Your task to perform on an android device: turn off location Image 0: 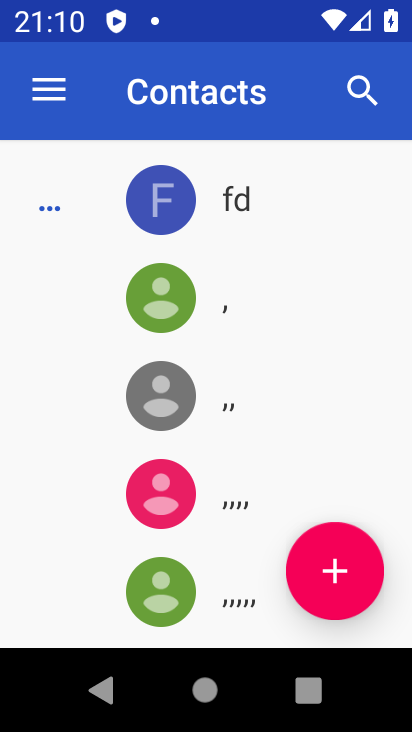
Step 0: press home button
Your task to perform on an android device: turn off location Image 1: 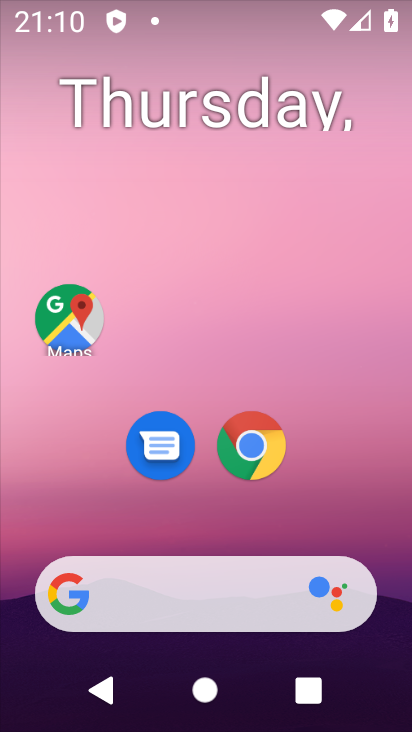
Step 1: drag from (3, 361) to (228, 186)
Your task to perform on an android device: turn off location Image 2: 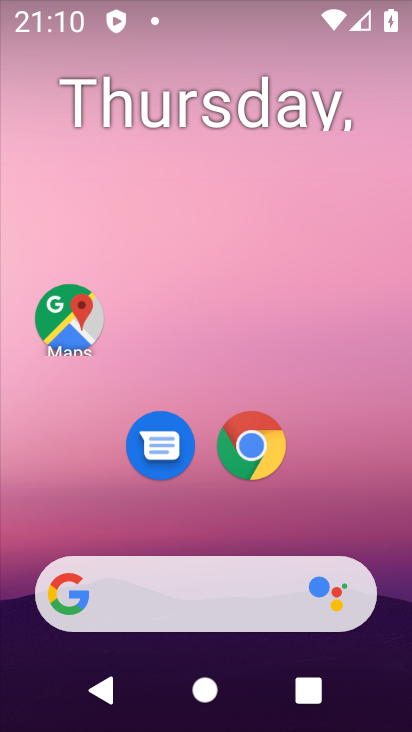
Step 2: drag from (12, 654) to (310, 148)
Your task to perform on an android device: turn off location Image 3: 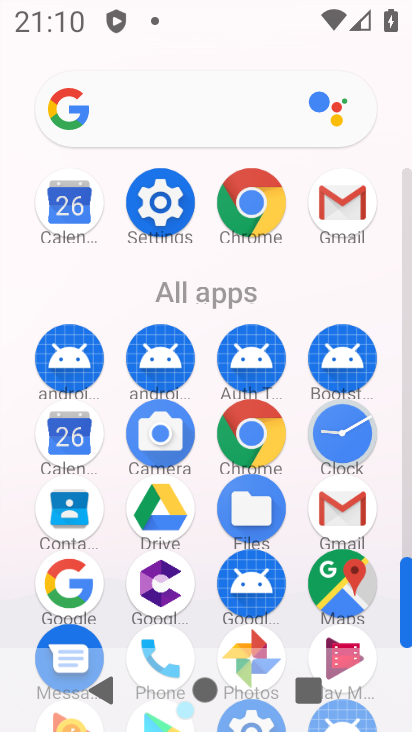
Step 3: click (146, 205)
Your task to perform on an android device: turn off location Image 4: 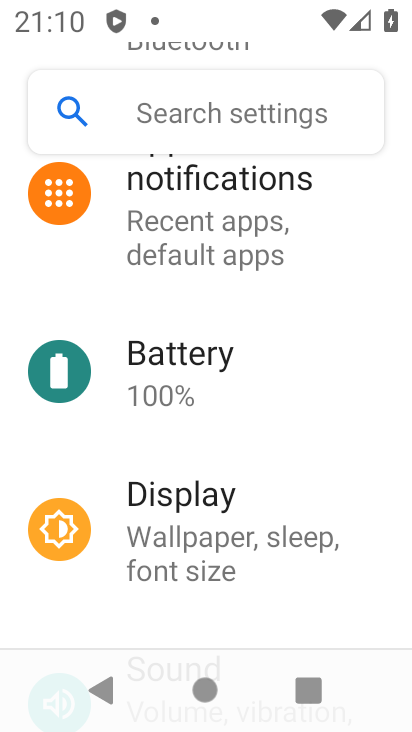
Step 4: drag from (0, 622) to (317, 196)
Your task to perform on an android device: turn off location Image 5: 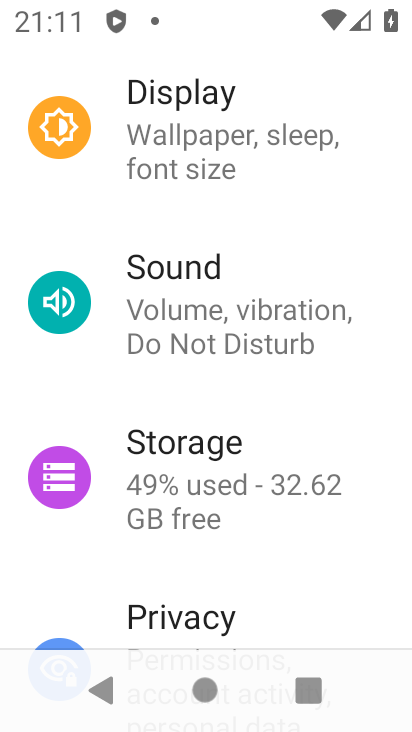
Step 5: drag from (39, 539) to (194, 360)
Your task to perform on an android device: turn off location Image 6: 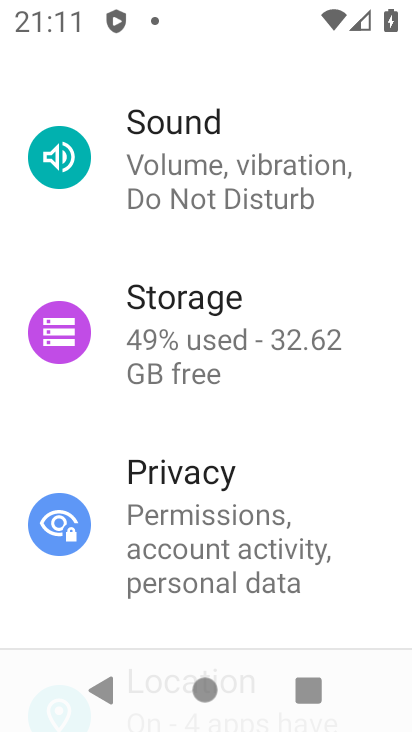
Step 6: drag from (26, 579) to (244, 264)
Your task to perform on an android device: turn off location Image 7: 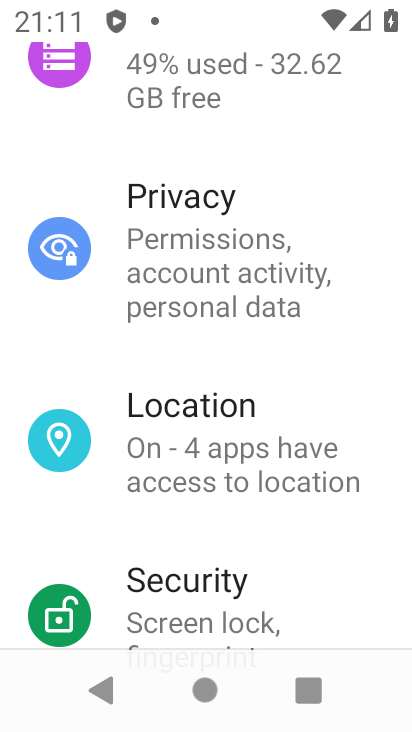
Step 7: click (213, 428)
Your task to perform on an android device: turn off location Image 8: 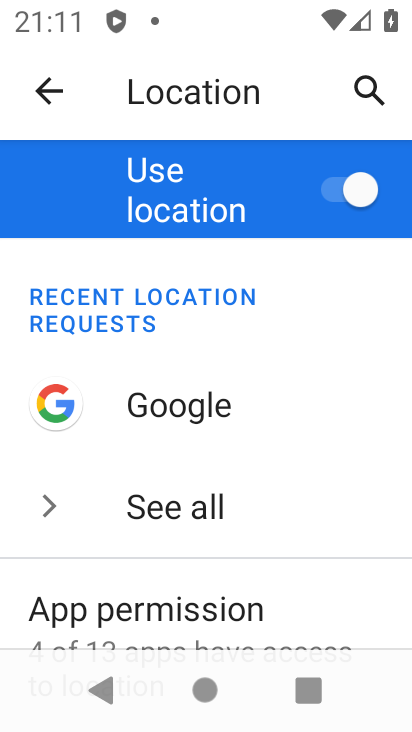
Step 8: click (367, 187)
Your task to perform on an android device: turn off location Image 9: 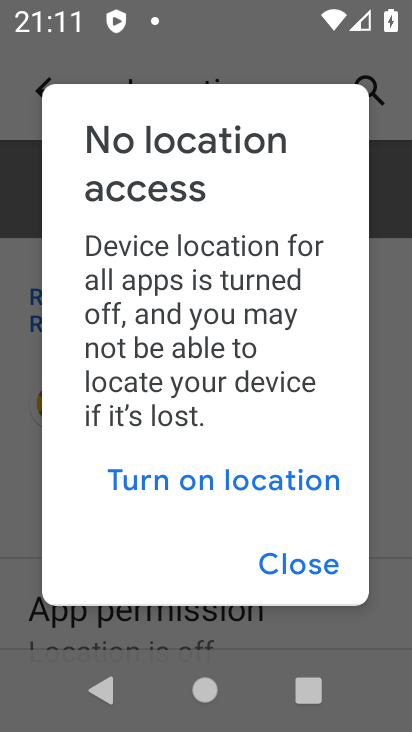
Step 9: task complete